Your task to perform on an android device: open app "Grab" (install if not already installed), go to login, and select forgot password Image 0: 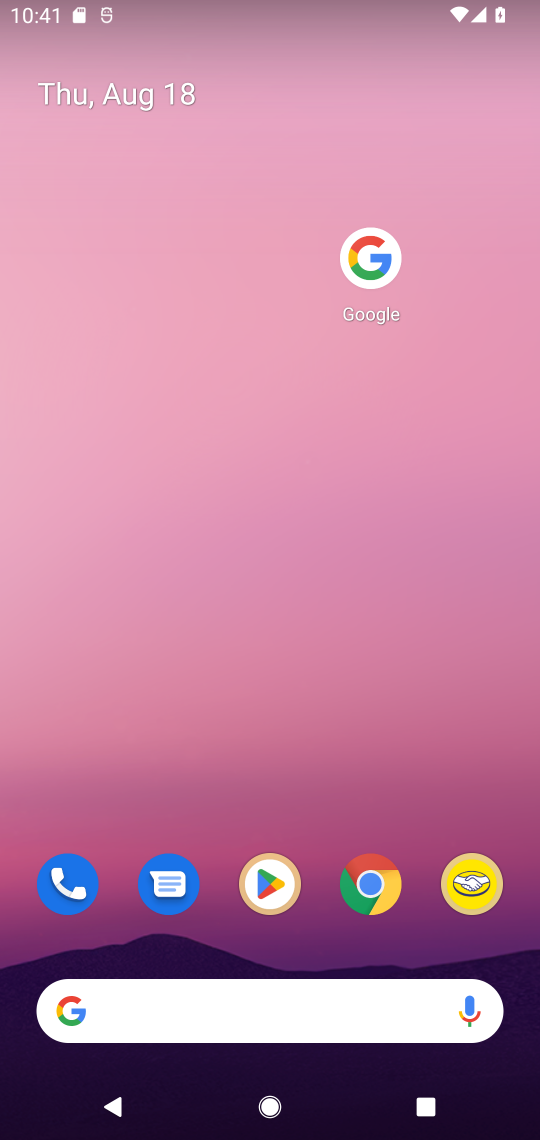
Step 0: click (266, 899)
Your task to perform on an android device: open app "Grab" (install if not already installed), go to login, and select forgot password Image 1: 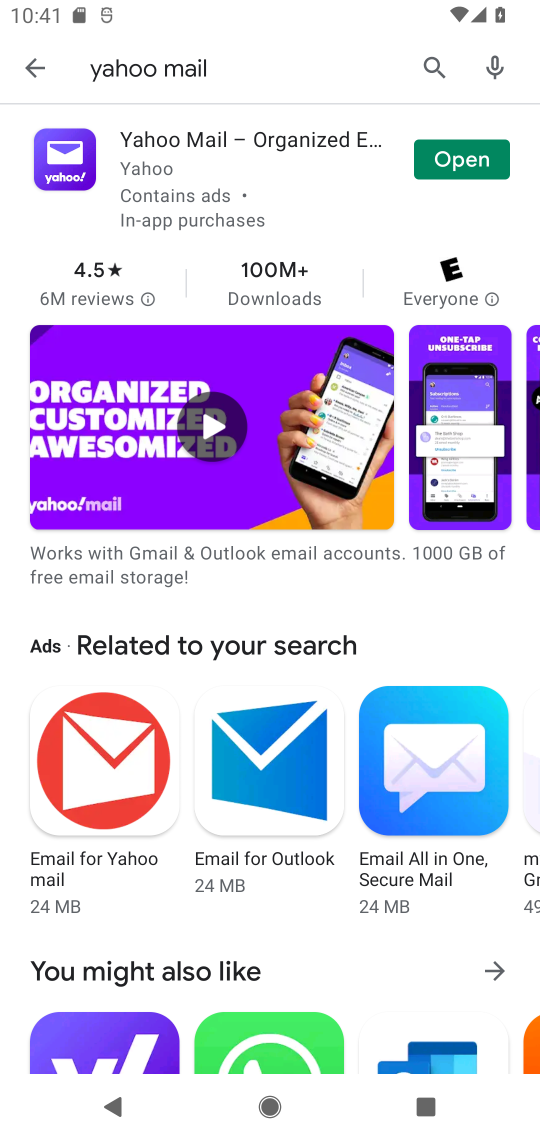
Step 1: click (414, 76)
Your task to perform on an android device: open app "Grab" (install if not already installed), go to login, and select forgot password Image 2: 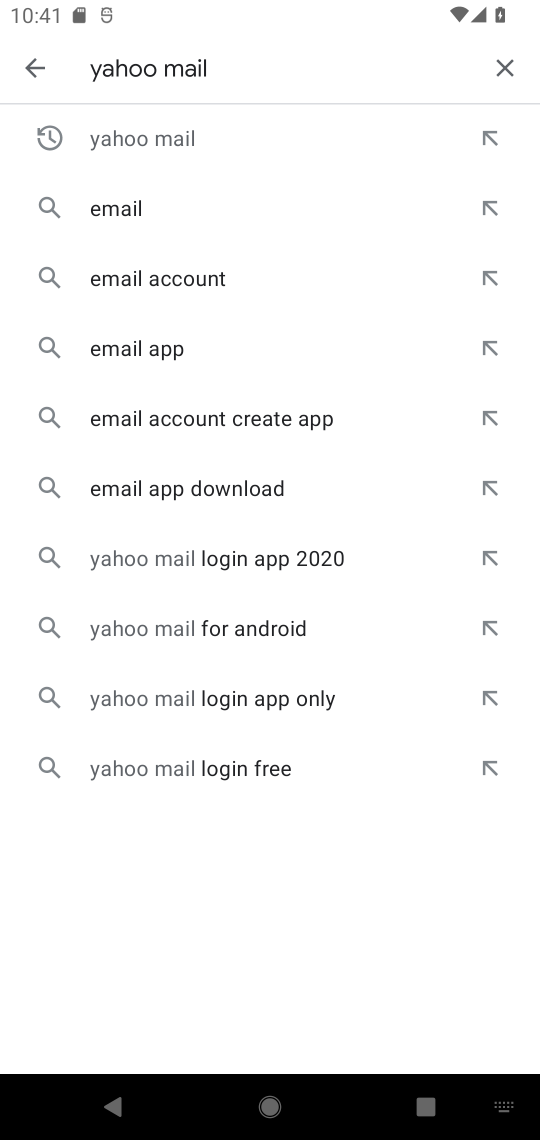
Step 2: click (500, 76)
Your task to perform on an android device: open app "Grab" (install if not already installed), go to login, and select forgot password Image 3: 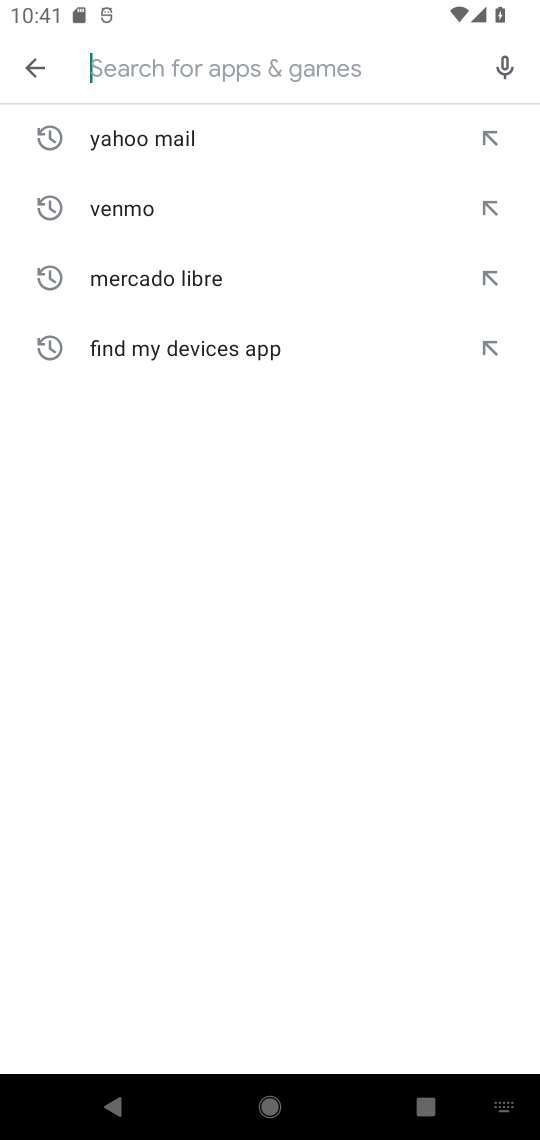
Step 3: type "grab"
Your task to perform on an android device: open app "Grab" (install if not already installed), go to login, and select forgot password Image 4: 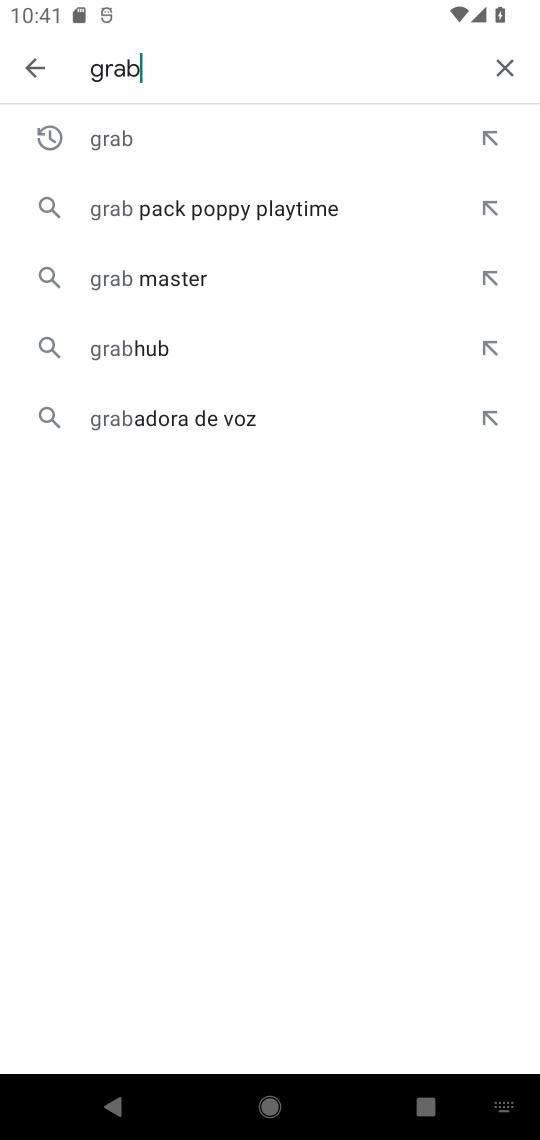
Step 4: click (228, 109)
Your task to perform on an android device: open app "Grab" (install if not already installed), go to login, and select forgot password Image 5: 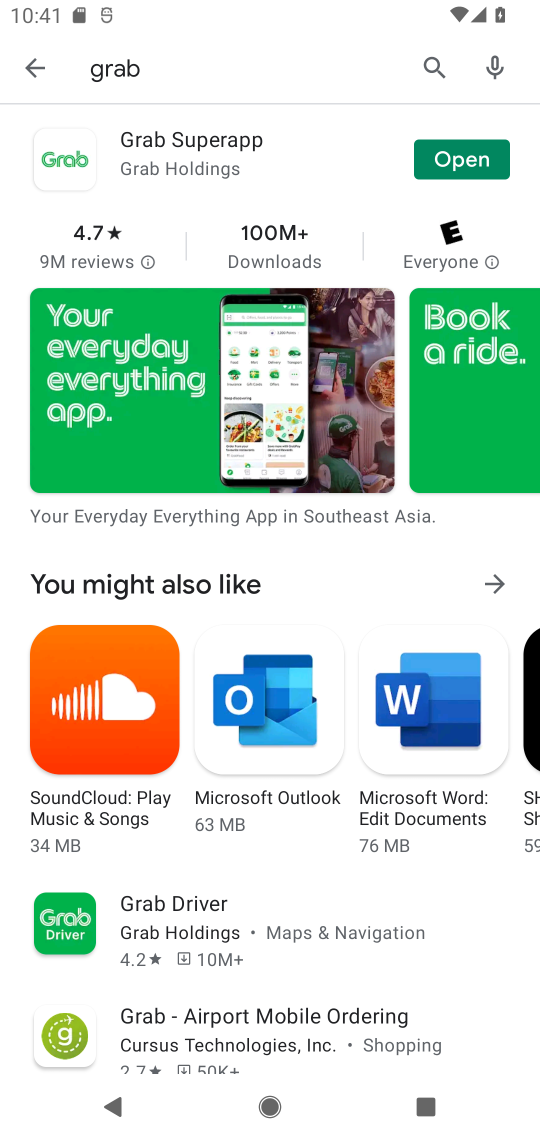
Step 5: click (429, 163)
Your task to perform on an android device: open app "Grab" (install if not already installed), go to login, and select forgot password Image 6: 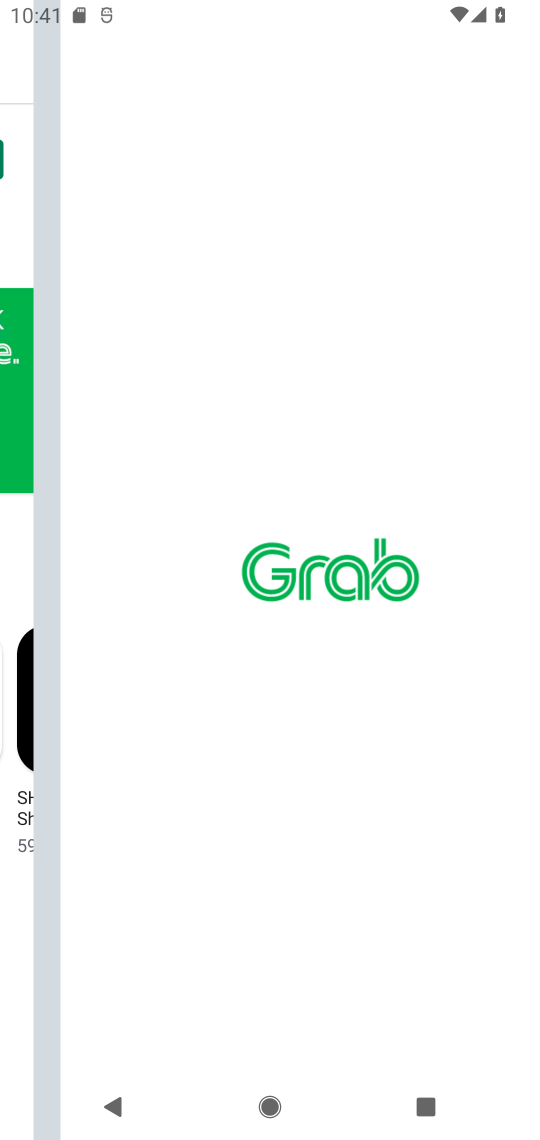
Step 6: task complete